Your task to perform on an android device: Open Chrome and go to settings Image 0: 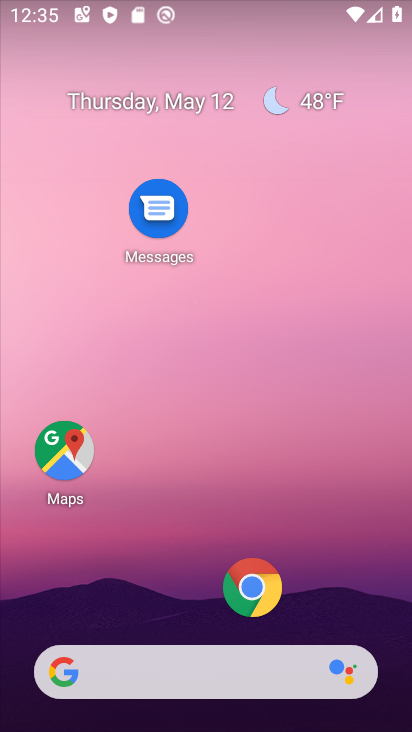
Step 0: click (259, 607)
Your task to perform on an android device: Open Chrome and go to settings Image 1: 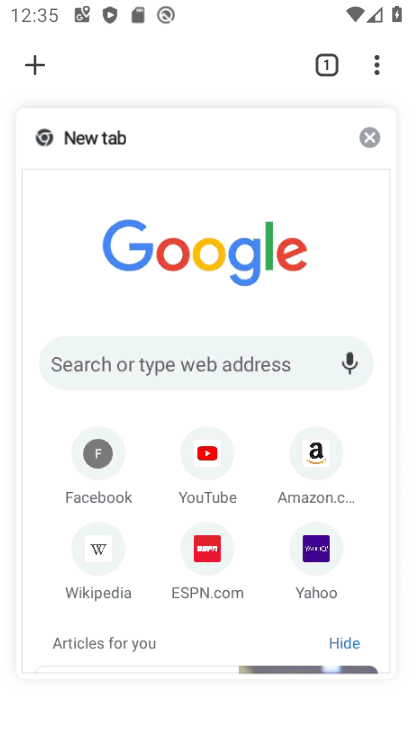
Step 1: click (319, 227)
Your task to perform on an android device: Open Chrome and go to settings Image 2: 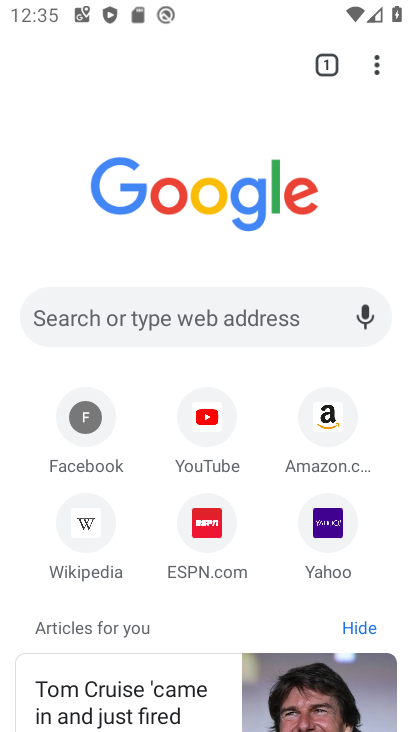
Step 2: click (374, 71)
Your task to perform on an android device: Open Chrome and go to settings Image 3: 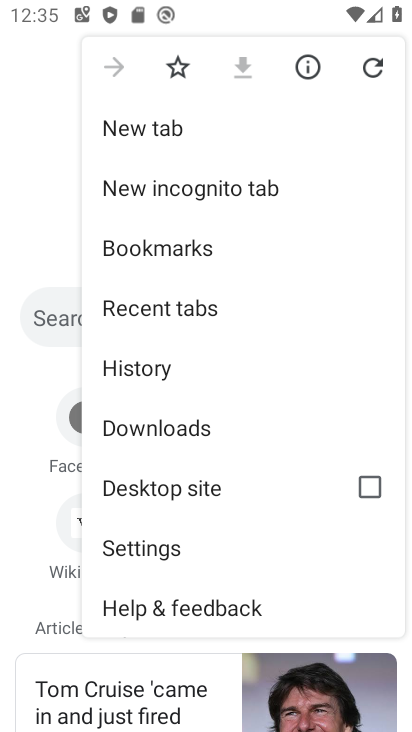
Step 3: click (98, 548)
Your task to perform on an android device: Open Chrome and go to settings Image 4: 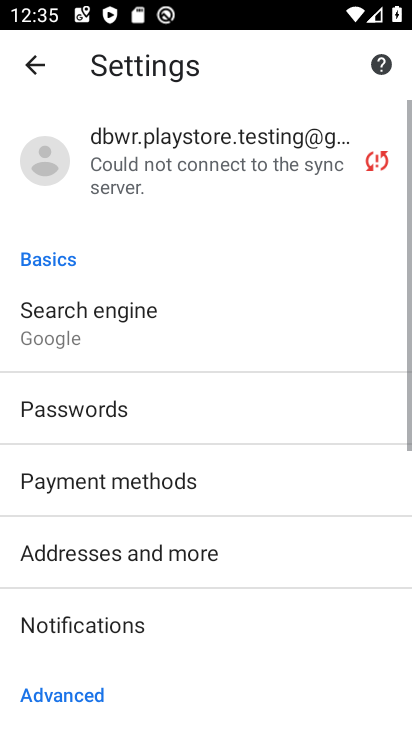
Step 4: task complete